Your task to perform on an android device: open sync settings in chrome Image 0: 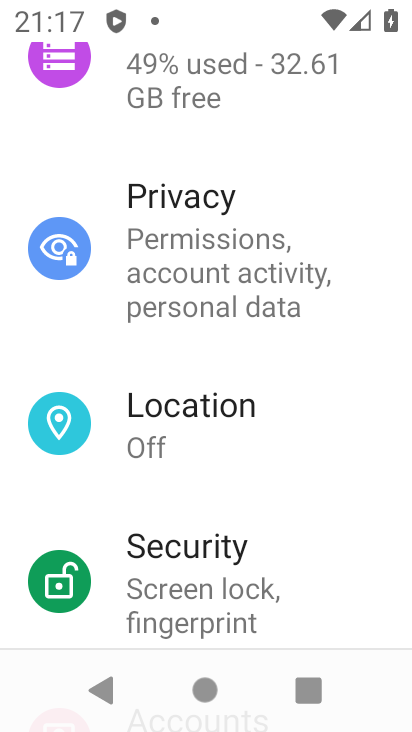
Step 0: press home button
Your task to perform on an android device: open sync settings in chrome Image 1: 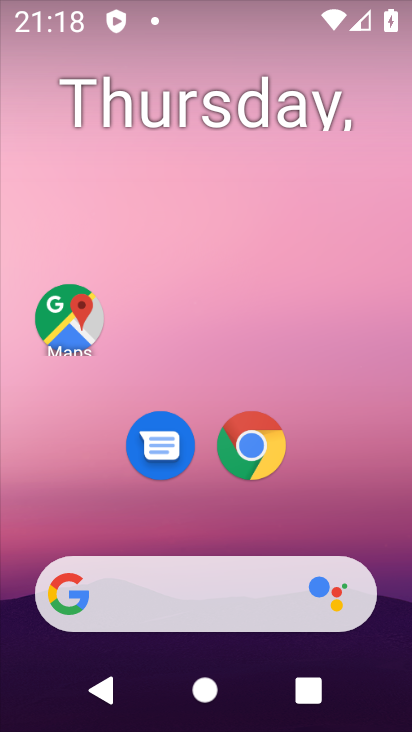
Step 1: click (238, 436)
Your task to perform on an android device: open sync settings in chrome Image 2: 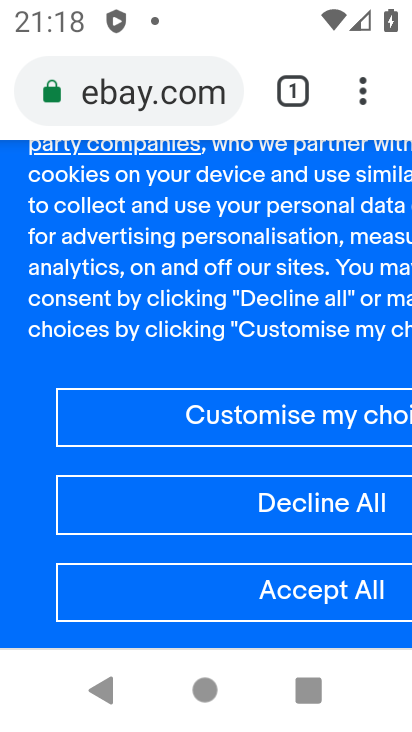
Step 2: click (379, 83)
Your task to perform on an android device: open sync settings in chrome Image 3: 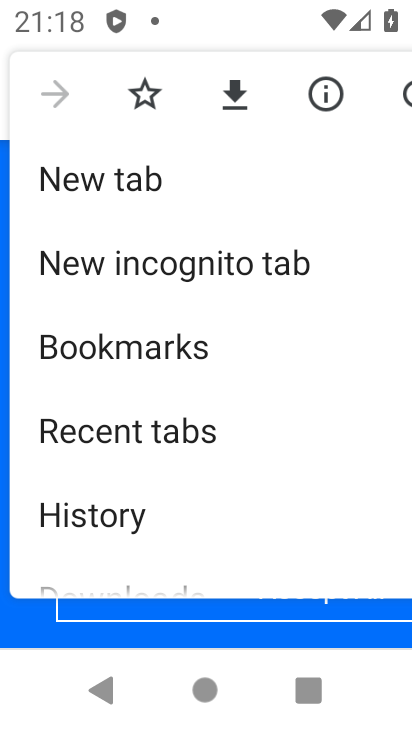
Step 3: drag from (102, 555) to (263, 164)
Your task to perform on an android device: open sync settings in chrome Image 4: 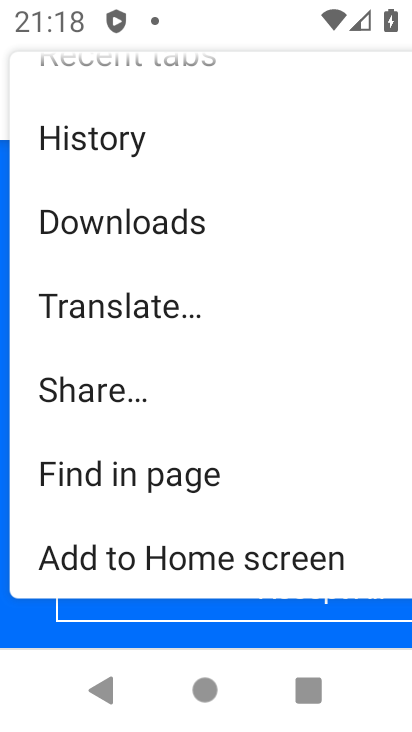
Step 4: drag from (53, 524) to (198, 294)
Your task to perform on an android device: open sync settings in chrome Image 5: 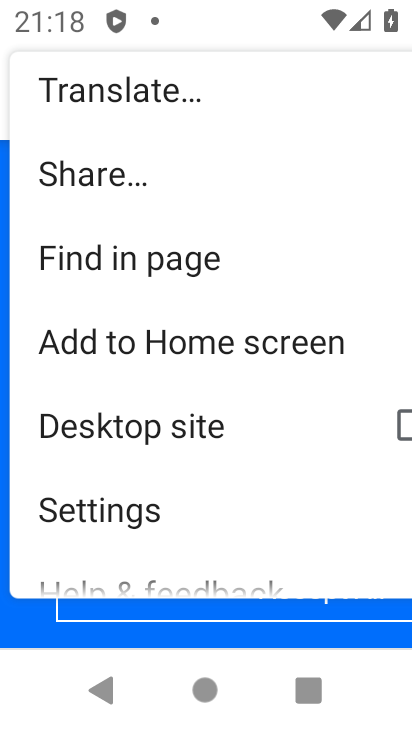
Step 5: click (90, 503)
Your task to perform on an android device: open sync settings in chrome Image 6: 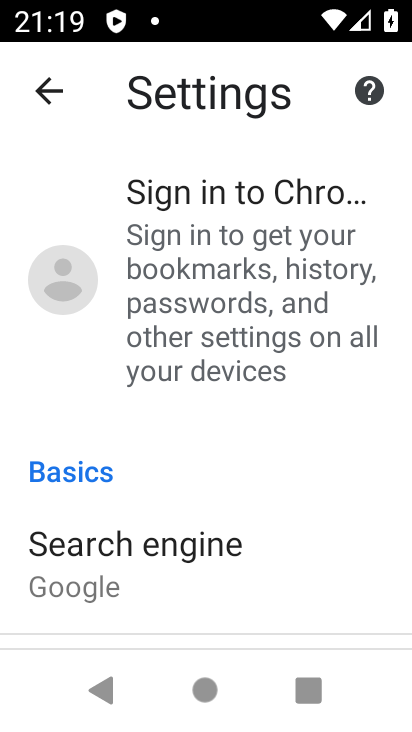
Step 6: drag from (28, 494) to (233, 175)
Your task to perform on an android device: open sync settings in chrome Image 7: 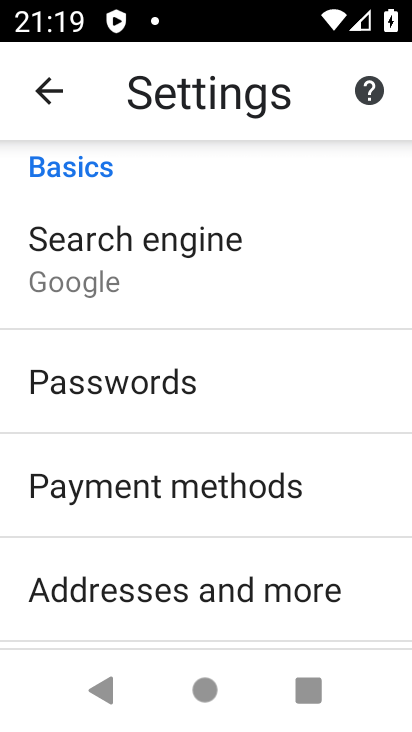
Step 7: drag from (10, 571) to (239, 214)
Your task to perform on an android device: open sync settings in chrome Image 8: 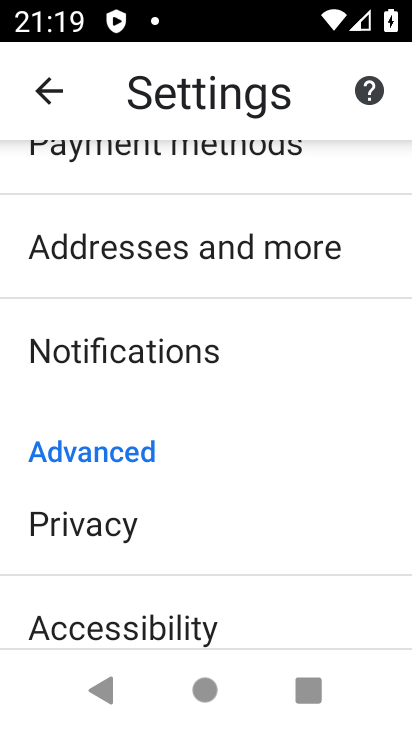
Step 8: click (257, 182)
Your task to perform on an android device: open sync settings in chrome Image 9: 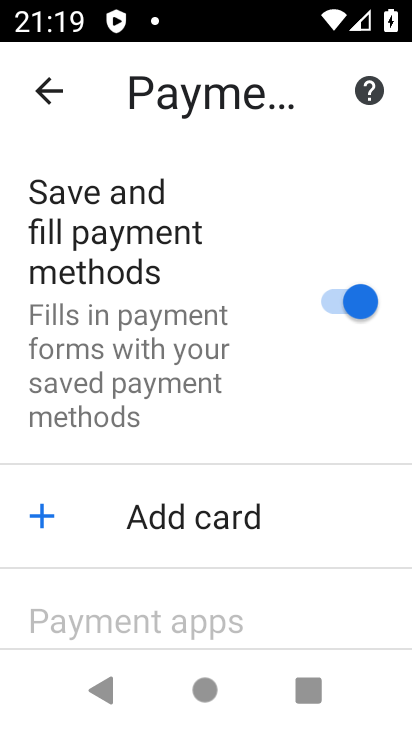
Step 9: drag from (18, 480) to (159, 146)
Your task to perform on an android device: open sync settings in chrome Image 10: 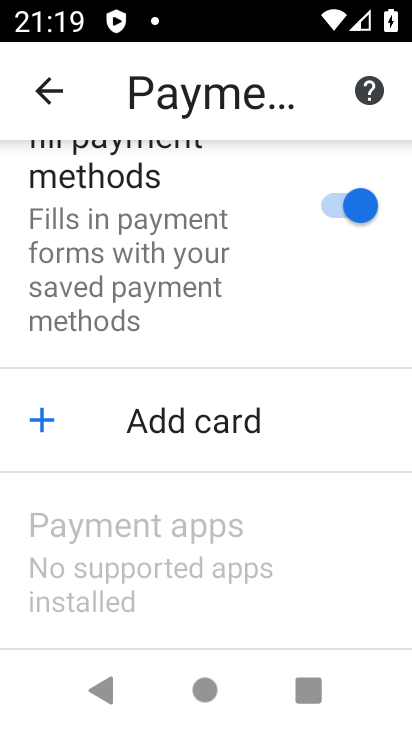
Step 10: press back button
Your task to perform on an android device: open sync settings in chrome Image 11: 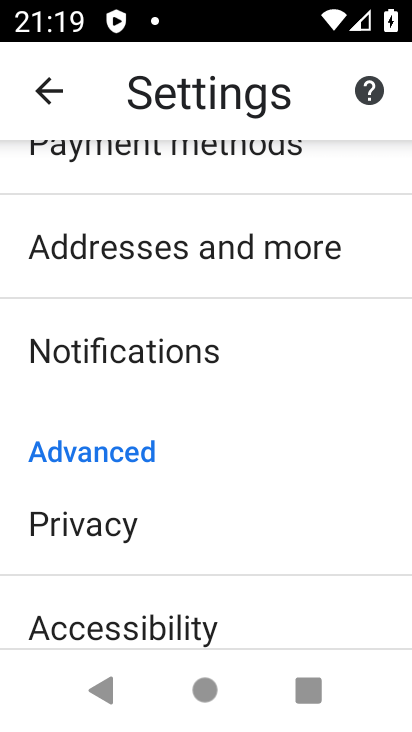
Step 11: drag from (15, 569) to (244, 170)
Your task to perform on an android device: open sync settings in chrome Image 12: 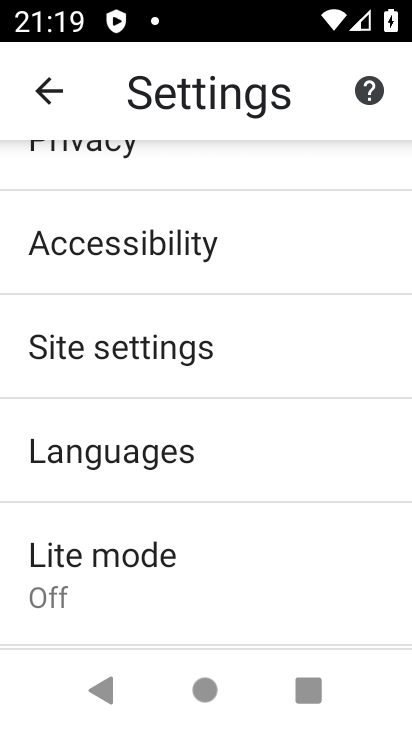
Step 12: click (155, 338)
Your task to perform on an android device: open sync settings in chrome Image 13: 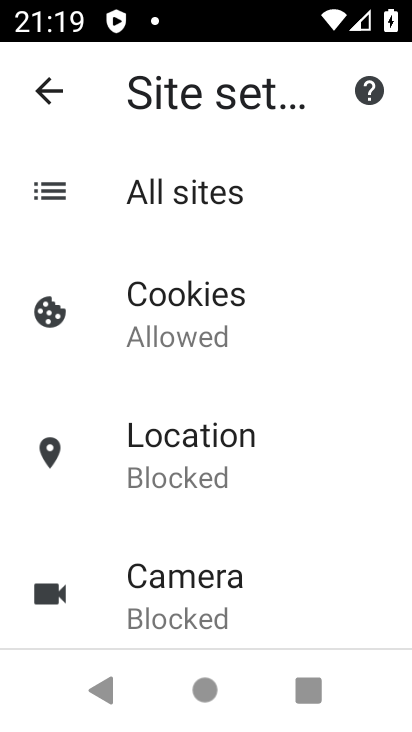
Step 13: drag from (33, 541) to (246, 223)
Your task to perform on an android device: open sync settings in chrome Image 14: 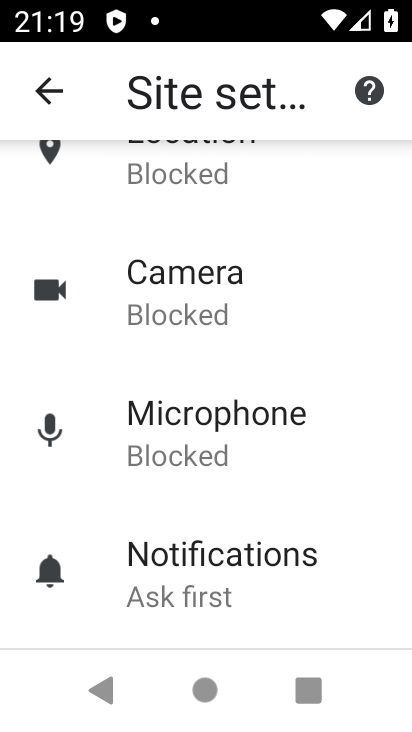
Step 14: drag from (82, 404) to (211, 169)
Your task to perform on an android device: open sync settings in chrome Image 15: 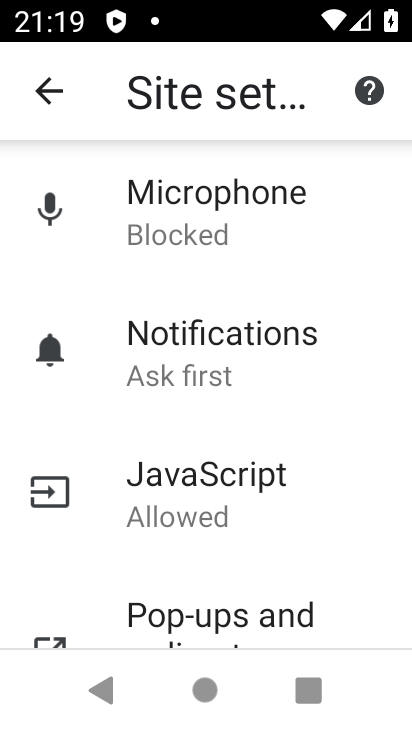
Step 15: drag from (60, 606) to (283, 185)
Your task to perform on an android device: open sync settings in chrome Image 16: 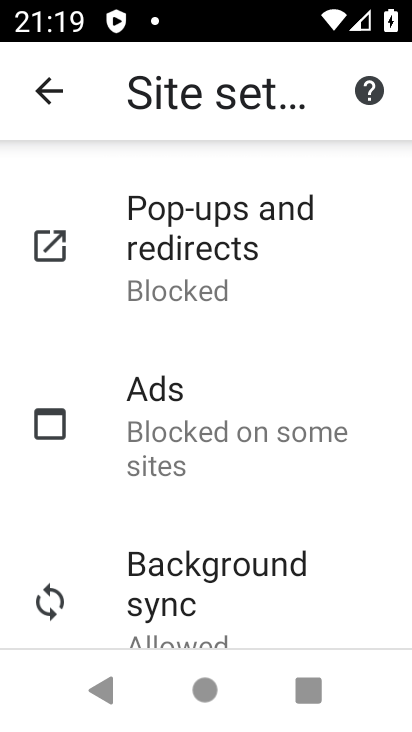
Step 16: click (132, 579)
Your task to perform on an android device: open sync settings in chrome Image 17: 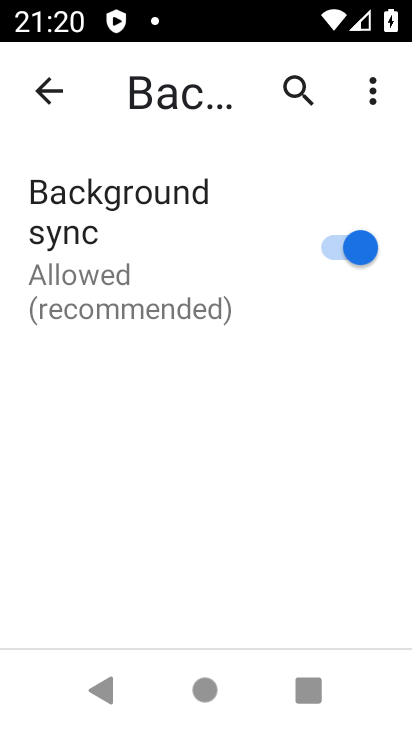
Step 17: task complete